Your task to perform on an android device: Open ESPN.com Image 0: 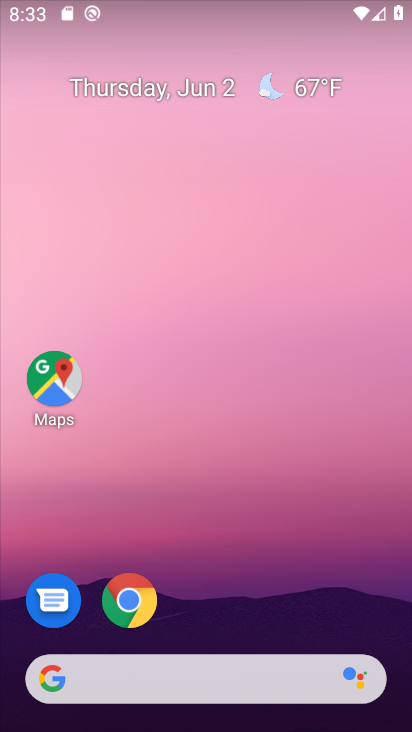
Step 0: click (141, 614)
Your task to perform on an android device: Open ESPN.com Image 1: 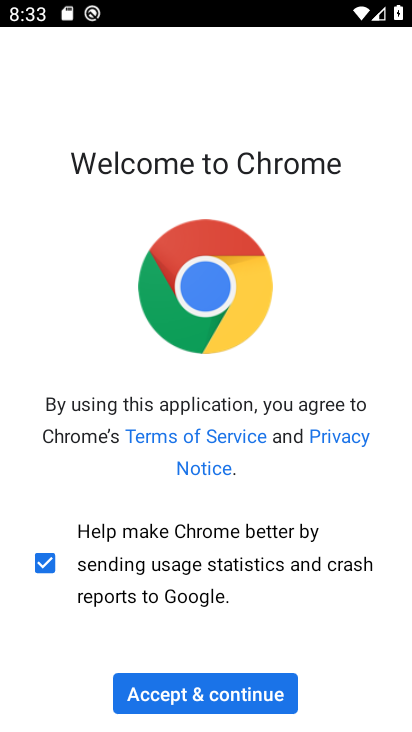
Step 1: click (225, 691)
Your task to perform on an android device: Open ESPN.com Image 2: 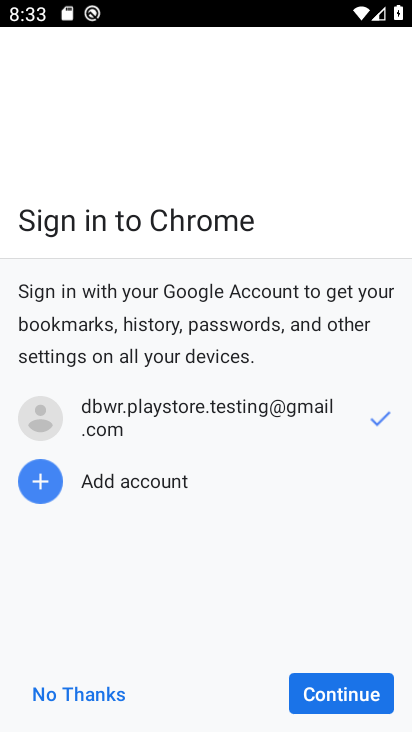
Step 2: click (357, 706)
Your task to perform on an android device: Open ESPN.com Image 3: 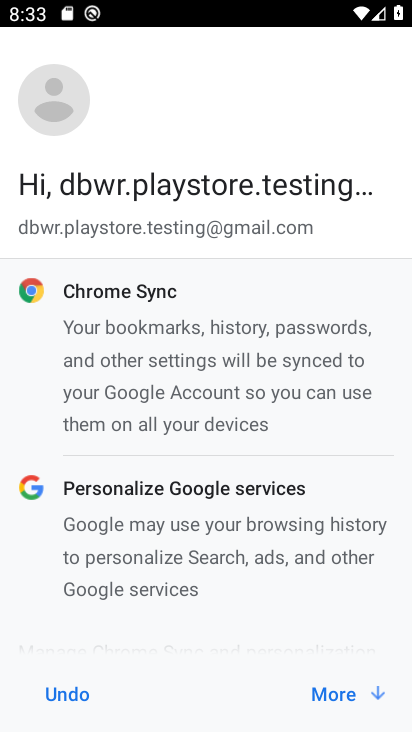
Step 3: click (357, 706)
Your task to perform on an android device: Open ESPN.com Image 4: 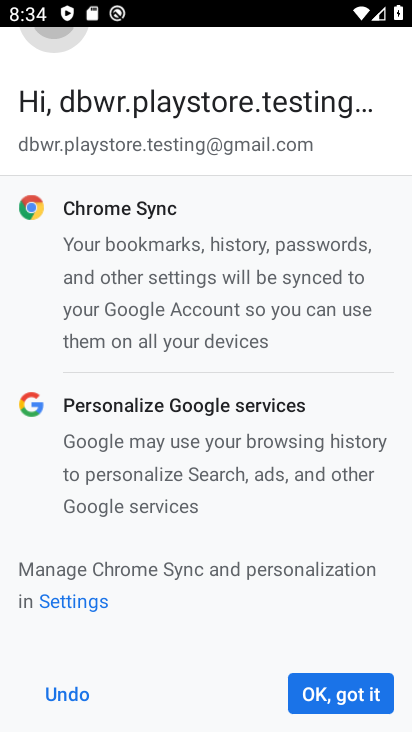
Step 4: click (357, 706)
Your task to perform on an android device: Open ESPN.com Image 5: 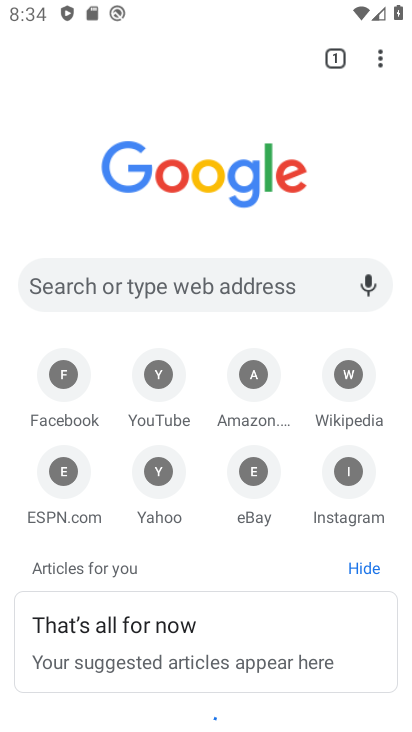
Step 5: click (77, 486)
Your task to perform on an android device: Open ESPN.com Image 6: 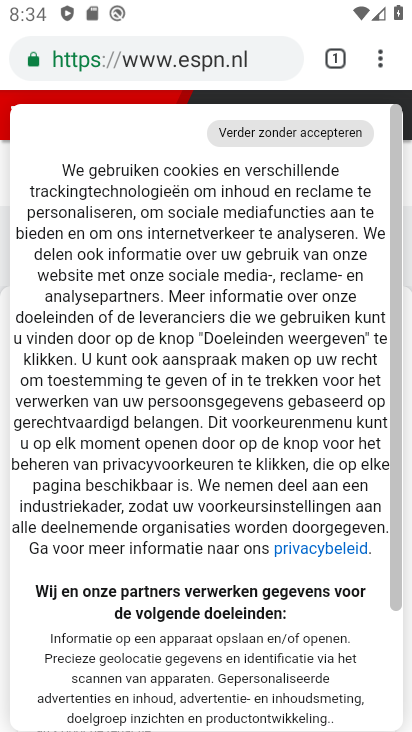
Step 6: drag from (204, 599) to (294, 276)
Your task to perform on an android device: Open ESPN.com Image 7: 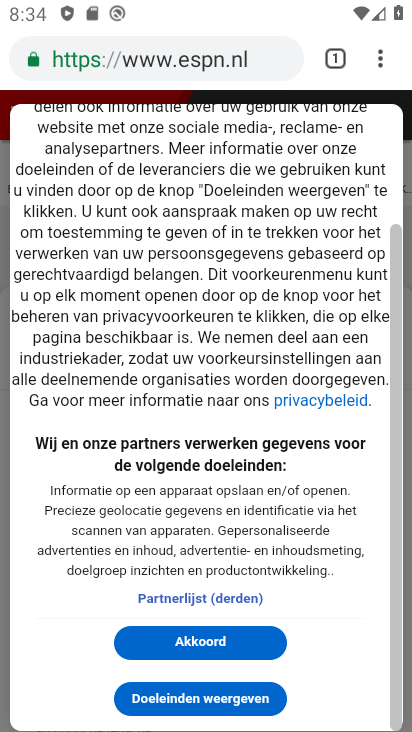
Step 7: click (246, 645)
Your task to perform on an android device: Open ESPN.com Image 8: 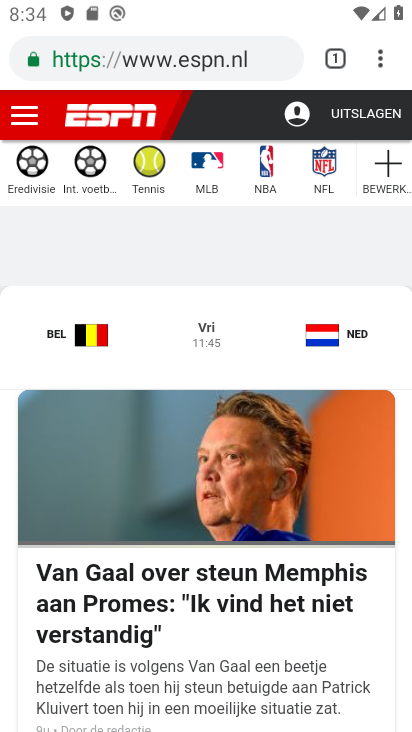
Step 8: task complete